Your task to perform on an android device: Check the weather Image 0: 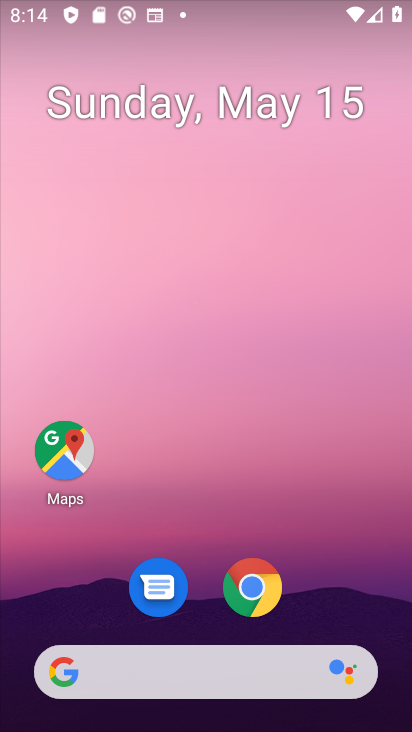
Step 0: drag from (200, 606) to (255, 181)
Your task to perform on an android device: Check the weather Image 1: 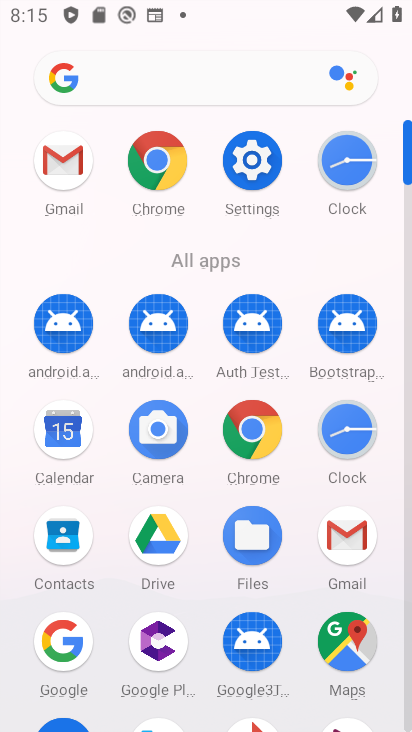
Step 1: click (253, 423)
Your task to perform on an android device: Check the weather Image 2: 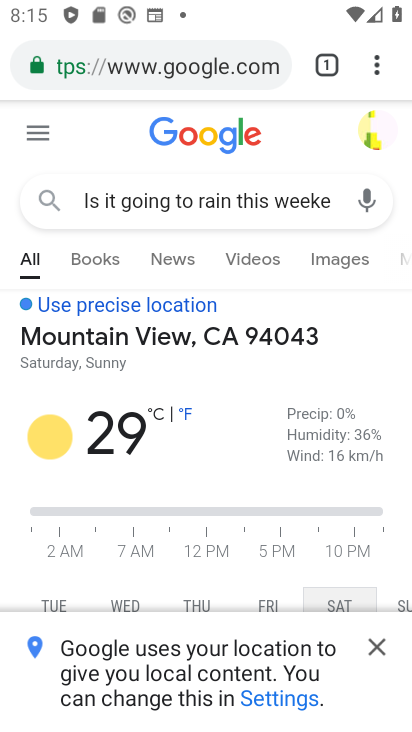
Step 2: click (98, 75)
Your task to perform on an android device: Check the weather Image 3: 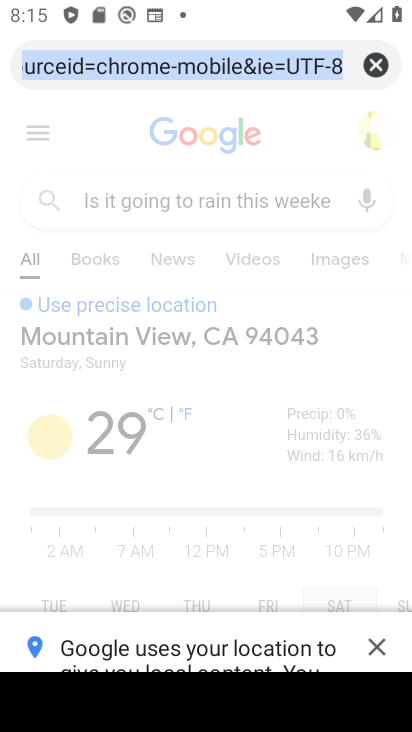
Step 3: type "weather"
Your task to perform on an android device: Check the weather Image 4: 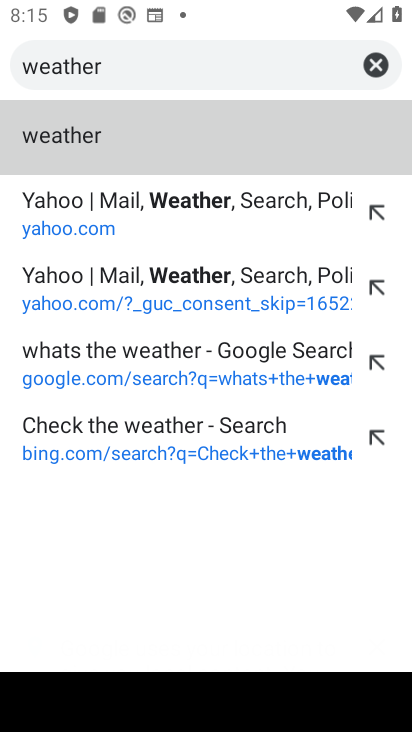
Step 4: click (98, 137)
Your task to perform on an android device: Check the weather Image 5: 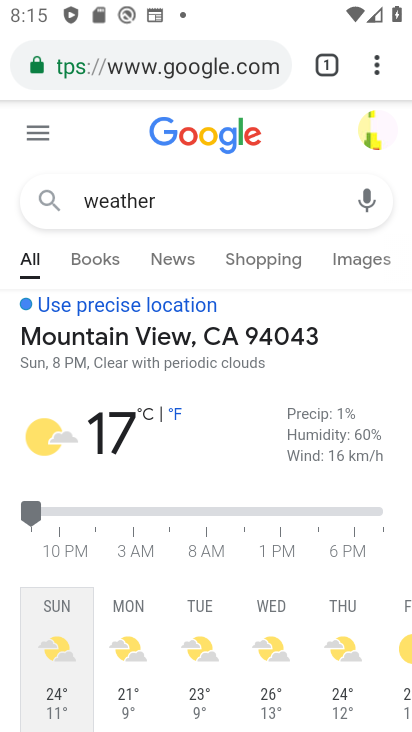
Step 5: task complete